Your task to perform on an android device: set the stopwatch Image 0: 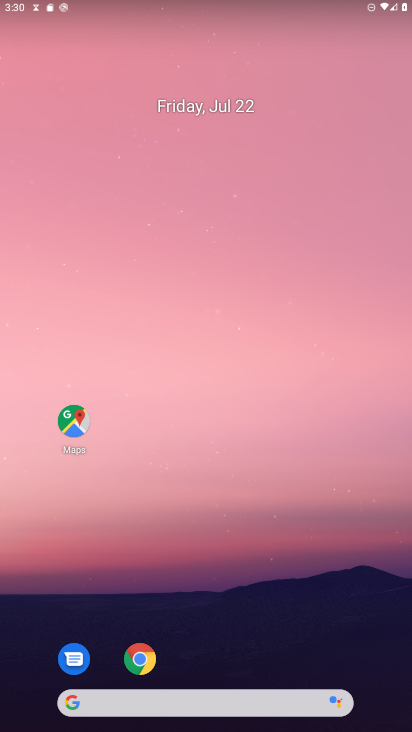
Step 0: drag from (282, 610) to (204, 116)
Your task to perform on an android device: set the stopwatch Image 1: 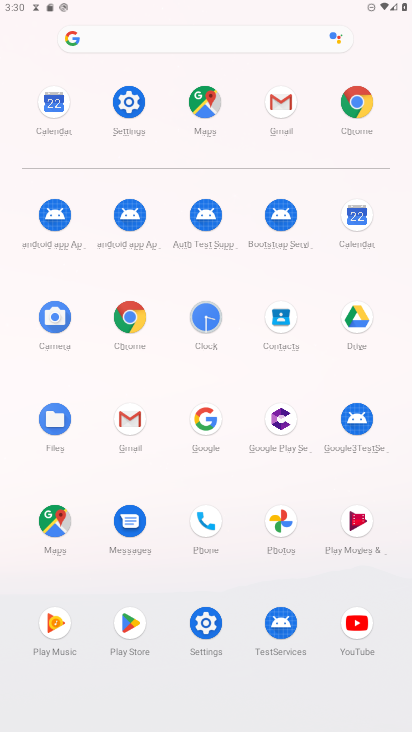
Step 1: click (202, 312)
Your task to perform on an android device: set the stopwatch Image 2: 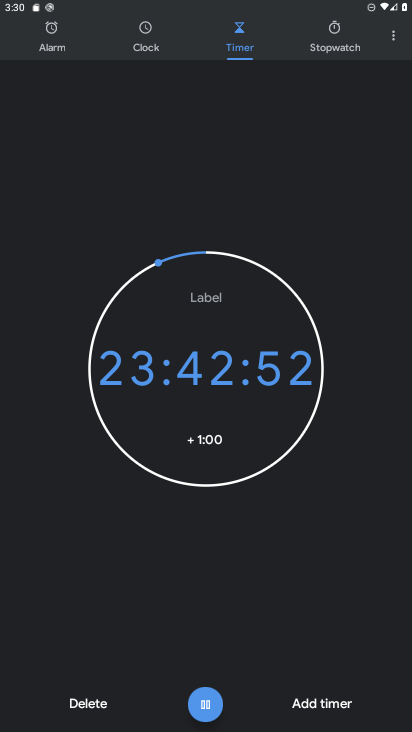
Step 2: click (327, 27)
Your task to perform on an android device: set the stopwatch Image 3: 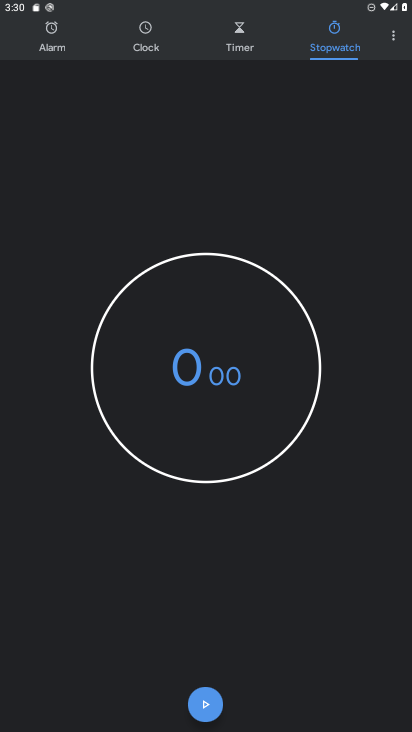
Step 3: click (201, 713)
Your task to perform on an android device: set the stopwatch Image 4: 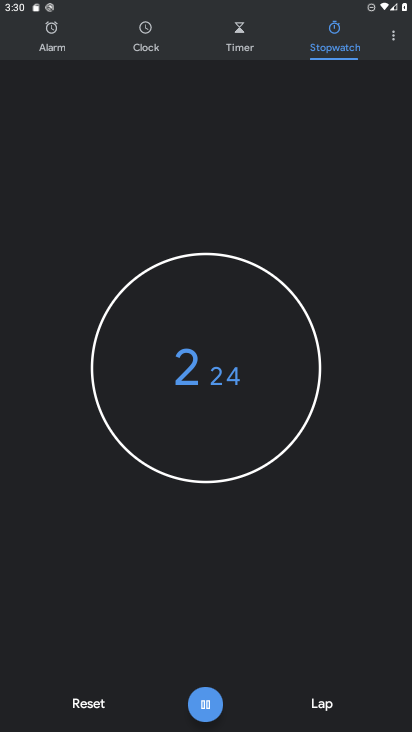
Step 4: task complete